Your task to perform on an android device: Open the calendar app, open the side menu, and click the "Day" option Image 0: 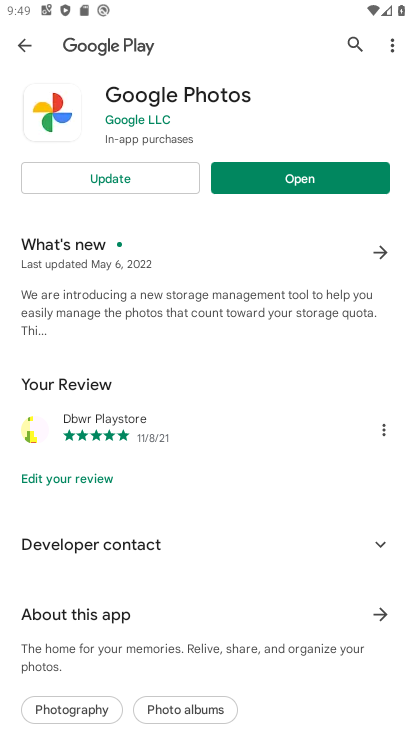
Step 0: click (302, 182)
Your task to perform on an android device: Open the calendar app, open the side menu, and click the "Day" option Image 1: 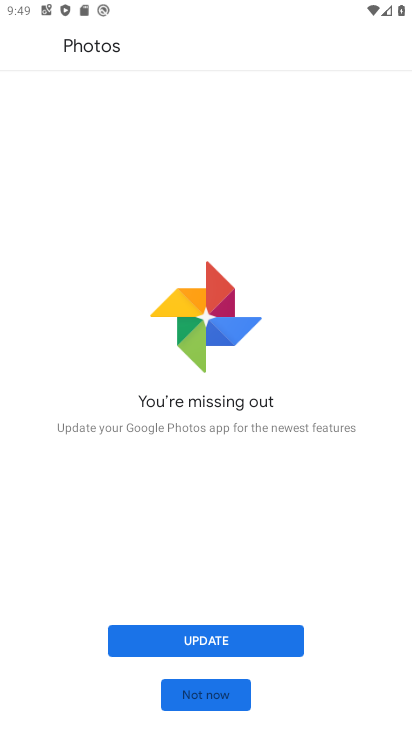
Step 1: press home button
Your task to perform on an android device: Open the calendar app, open the side menu, and click the "Day" option Image 2: 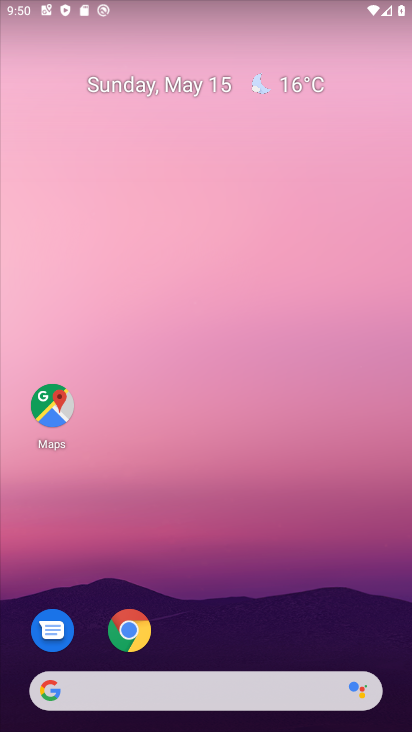
Step 2: drag from (293, 605) to (270, 225)
Your task to perform on an android device: Open the calendar app, open the side menu, and click the "Day" option Image 3: 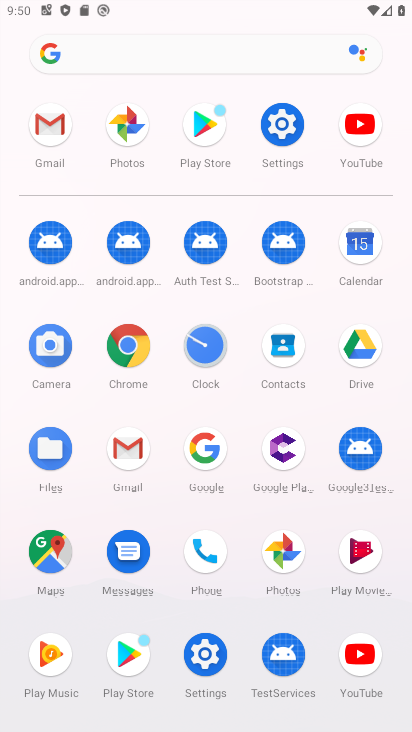
Step 3: click (356, 262)
Your task to perform on an android device: Open the calendar app, open the side menu, and click the "Day" option Image 4: 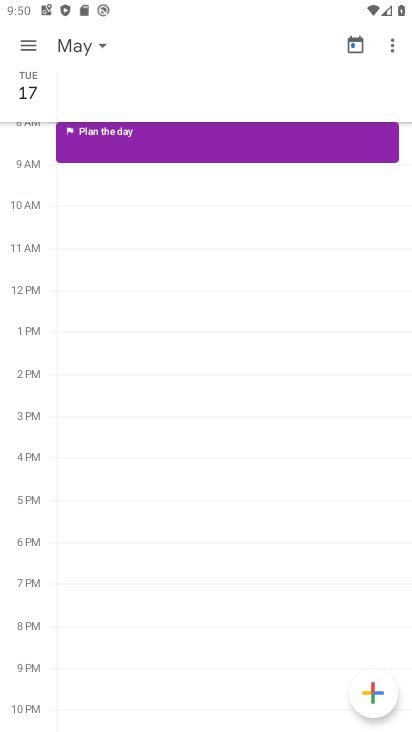
Step 4: click (31, 54)
Your task to perform on an android device: Open the calendar app, open the side menu, and click the "Day" option Image 5: 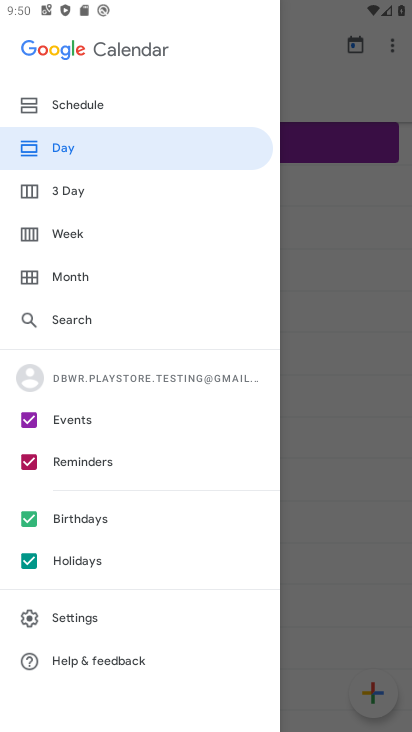
Step 5: click (78, 144)
Your task to perform on an android device: Open the calendar app, open the side menu, and click the "Day" option Image 6: 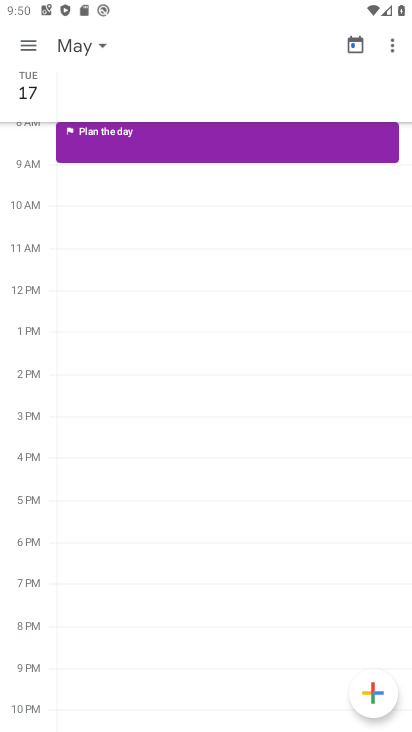
Step 6: task complete